Your task to perform on an android device: add a label to a message in the gmail app Image 0: 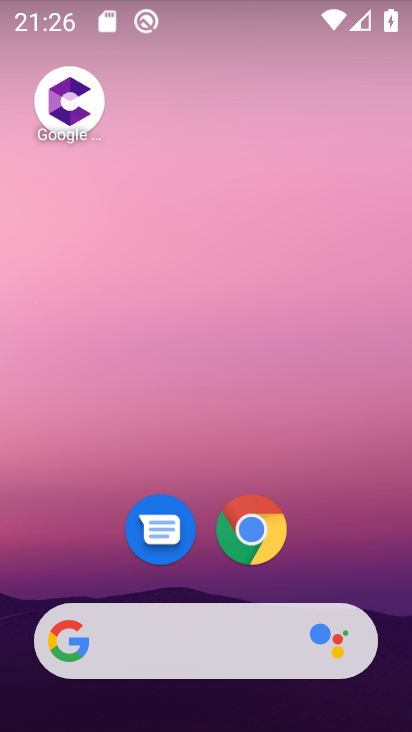
Step 0: drag from (60, 600) to (154, 178)
Your task to perform on an android device: add a label to a message in the gmail app Image 1: 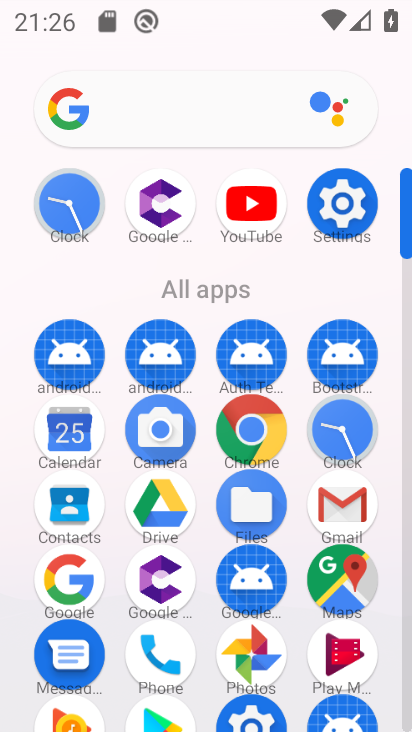
Step 1: click (350, 516)
Your task to perform on an android device: add a label to a message in the gmail app Image 2: 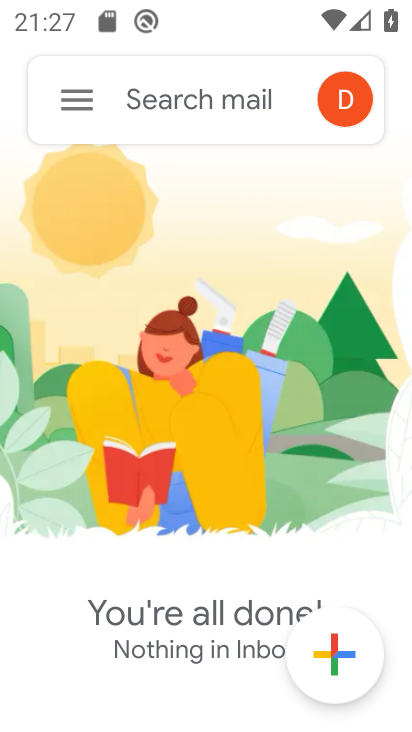
Step 2: click (60, 97)
Your task to perform on an android device: add a label to a message in the gmail app Image 3: 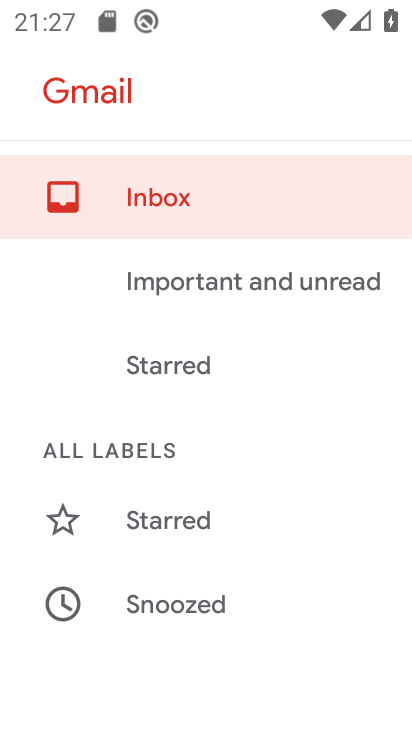
Step 3: drag from (209, 603) to (361, 191)
Your task to perform on an android device: add a label to a message in the gmail app Image 4: 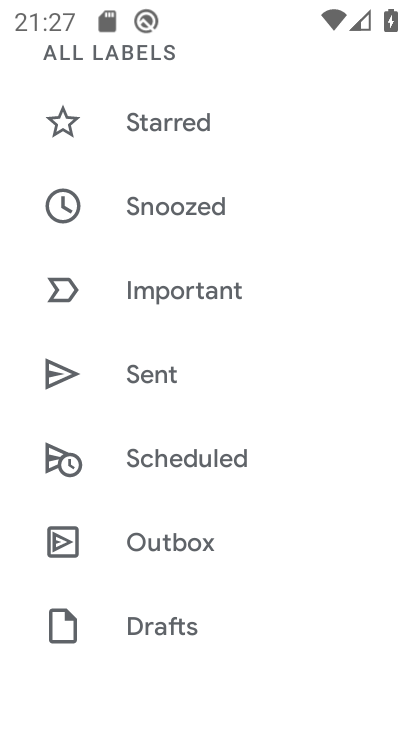
Step 4: drag from (212, 548) to (295, 233)
Your task to perform on an android device: add a label to a message in the gmail app Image 5: 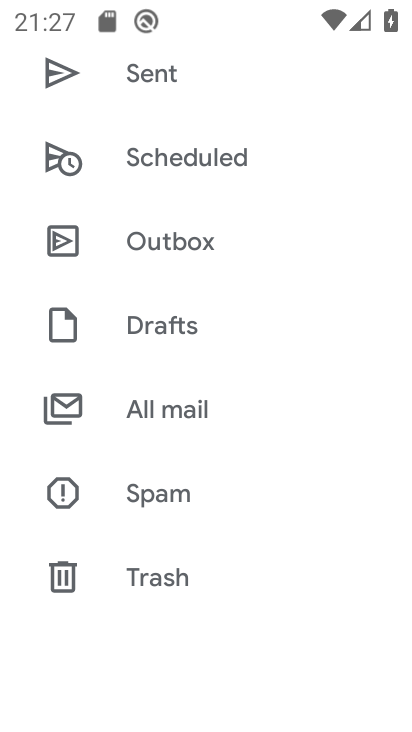
Step 5: click (221, 409)
Your task to perform on an android device: add a label to a message in the gmail app Image 6: 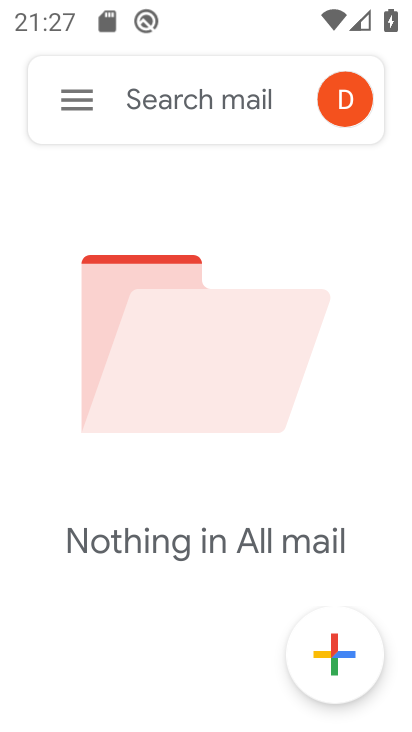
Step 6: task complete